Your task to perform on an android device: Go to network settings Image 0: 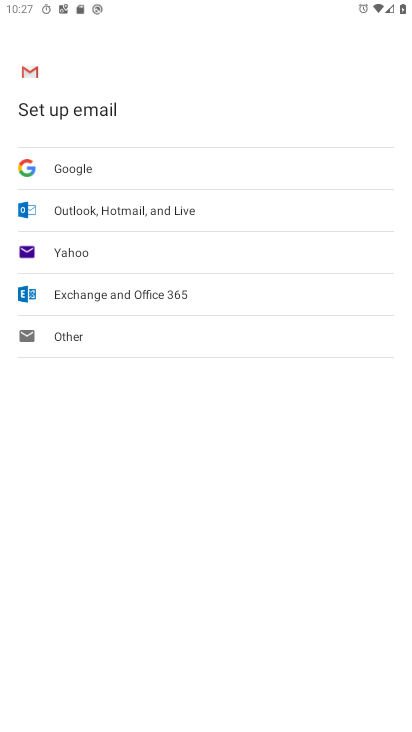
Step 0: press home button
Your task to perform on an android device: Go to network settings Image 1: 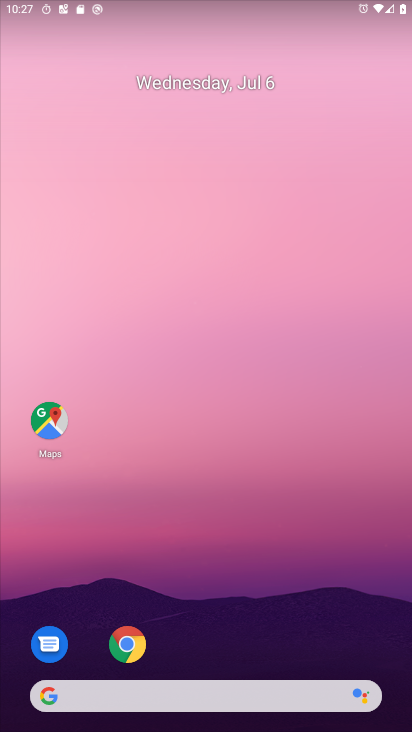
Step 1: drag from (216, 646) to (257, 114)
Your task to perform on an android device: Go to network settings Image 2: 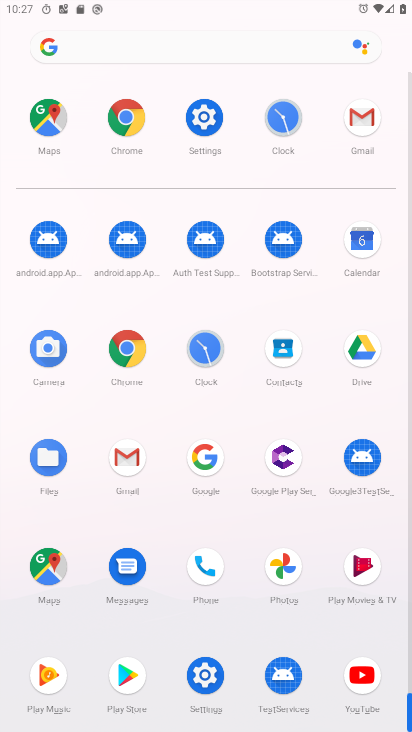
Step 2: click (194, 121)
Your task to perform on an android device: Go to network settings Image 3: 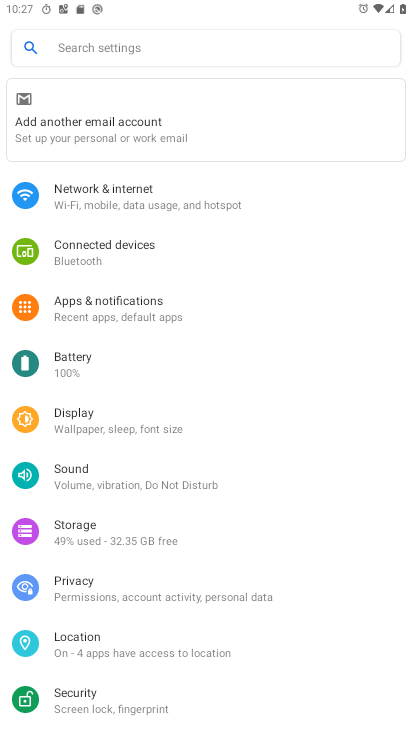
Step 3: click (134, 213)
Your task to perform on an android device: Go to network settings Image 4: 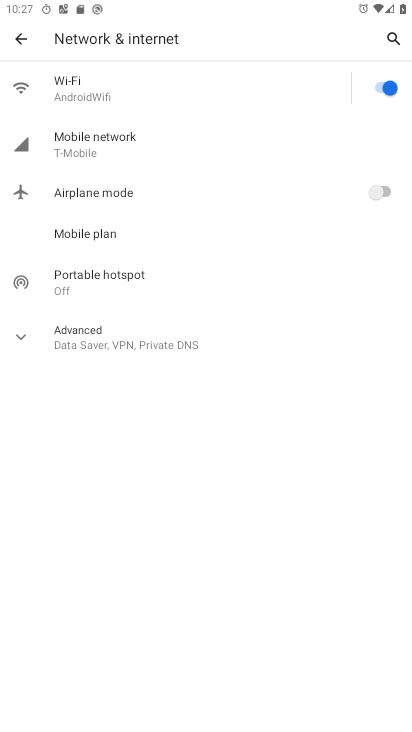
Step 4: click (178, 138)
Your task to perform on an android device: Go to network settings Image 5: 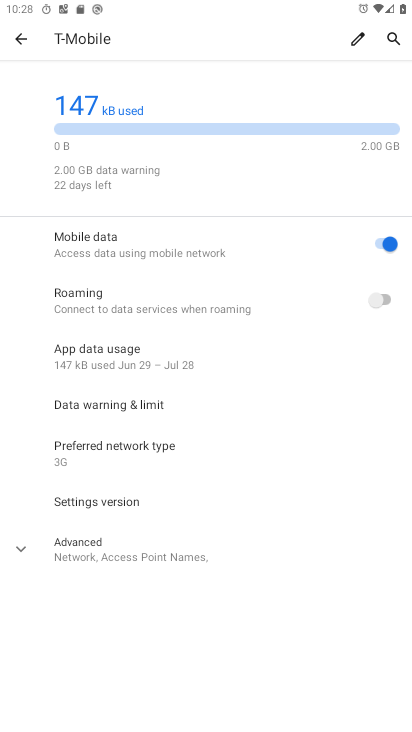
Step 5: task complete